Your task to perform on an android device: Open Youtube and go to the subscriptions tab Image 0: 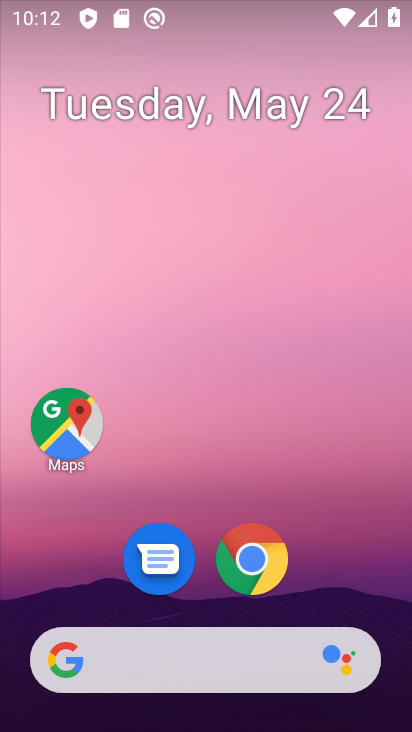
Step 0: drag from (204, 573) to (221, 115)
Your task to perform on an android device: Open Youtube and go to the subscriptions tab Image 1: 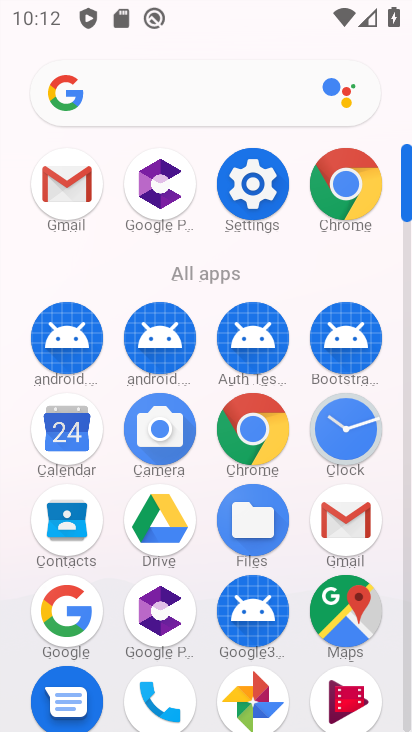
Step 1: drag from (225, 656) to (283, 92)
Your task to perform on an android device: Open Youtube and go to the subscriptions tab Image 2: 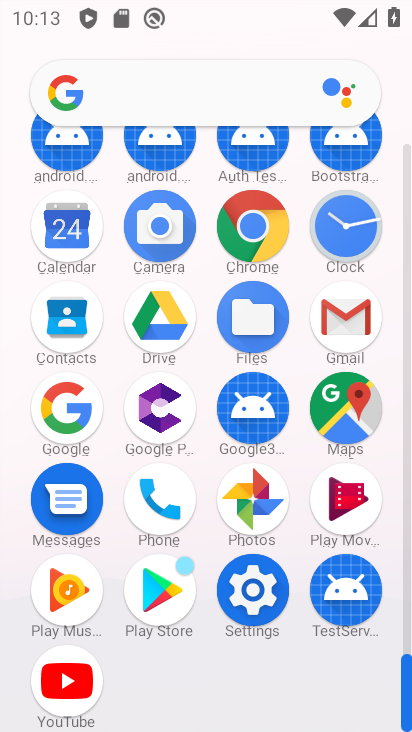
Step 2: click (64, 676)
Your task to perform on an android device: Open Youtube and go to the subscriptions tab Image 3: 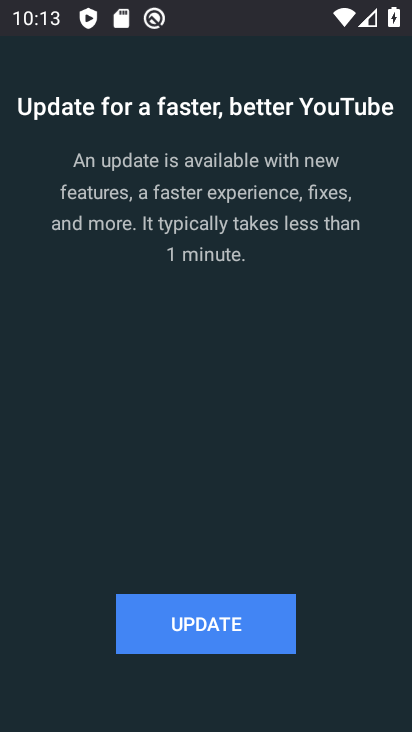
Step 3: click (183, 622)
Your task to perform on an android device: Open Youtube and go to the subscriptions tab Image 4: 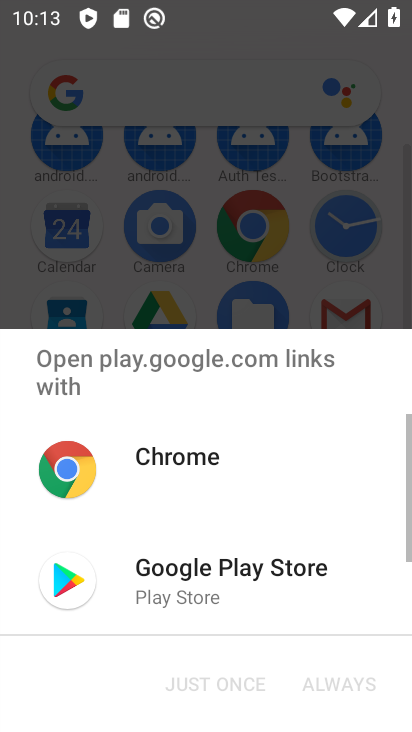
Step 4: click (188, 604)
Your task to perform on an android device: Open Youtube and go to the subscriptions tab Image 5: 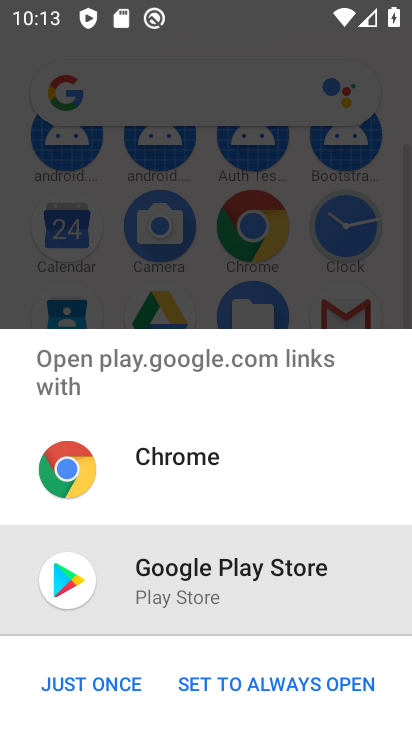
Step 5: click (78, 676)
Your task to perform on an android device: Open Youtube and go to the subscriptions tab Image 6: 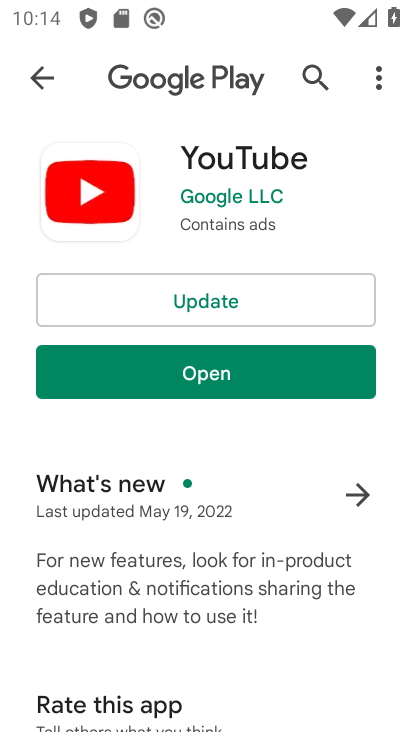
Step 6: click (172, 301)
Your task to perform on an android device: Open Youtube and go to the subscriptions tab Image 7: 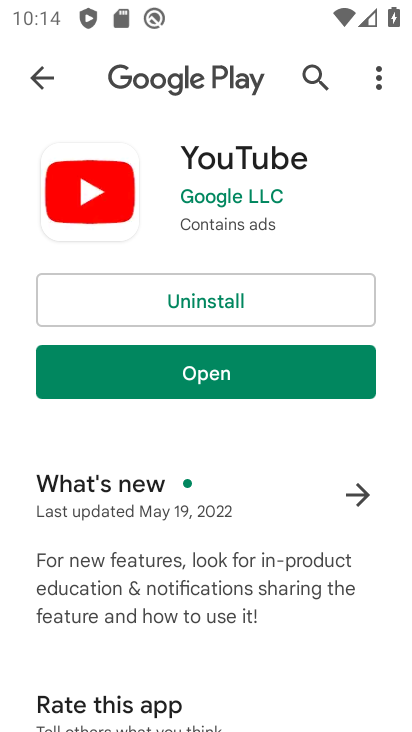
Step 7: click (183, 365)
Your task to perform on an android device: Open Youtube and go to the subscriptions tab Image 8: 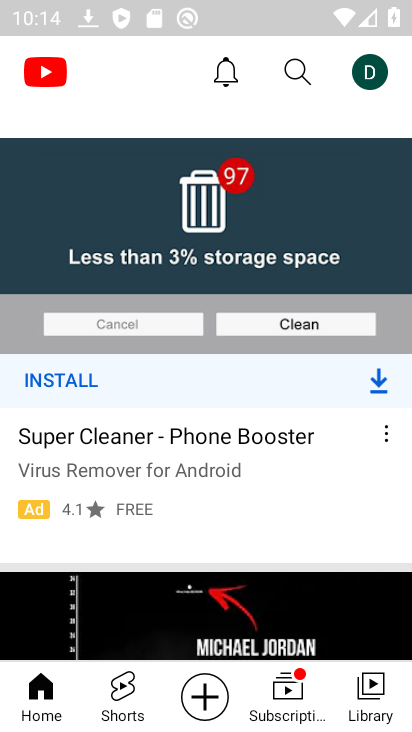
Step 8: click (286, 680)
Your task to perform on an android device: Open Youtube and go to the subscriptions tab Image 9: 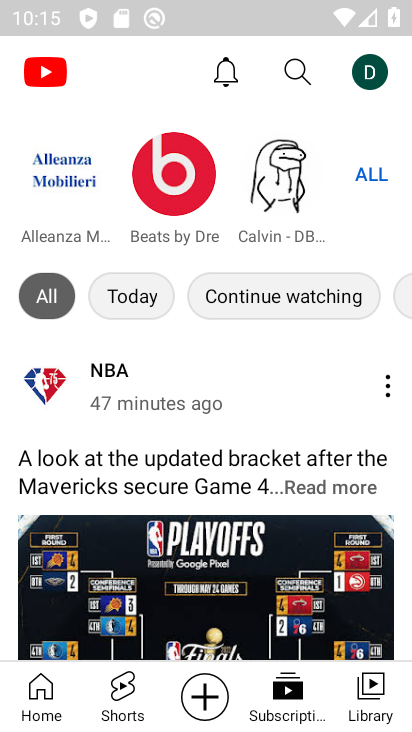
Step 9: task complete